Your task to perform on an android device: open a new tab in the chrome app Image 0: 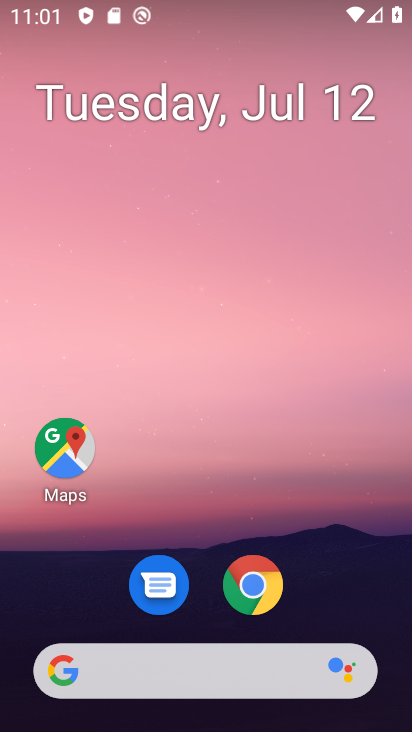
Step 0: click (260, 586)
Your task to perform on an android device: open a new tab in the chrome app Image 1: 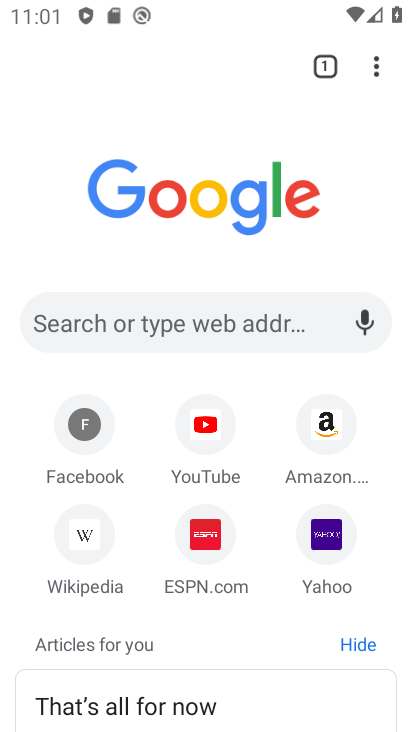
Step 1: click (374, 64)
Your task to perform on an android device: open a new tab in the chrome app Image 2: 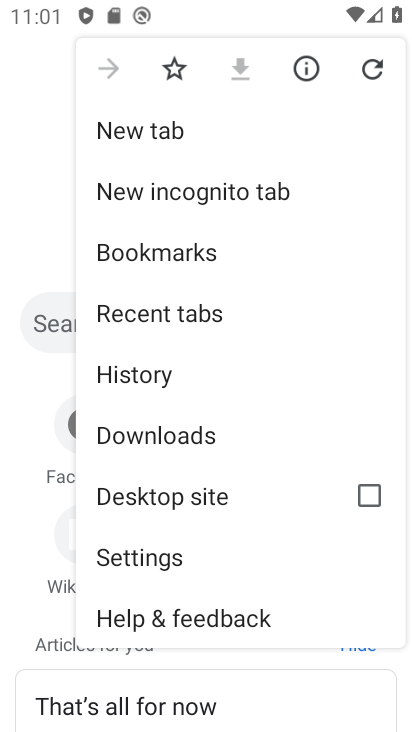
Step 2: click (283, 131)
Your task to perform on an android device: open a new tab in the chrome app Image 3: 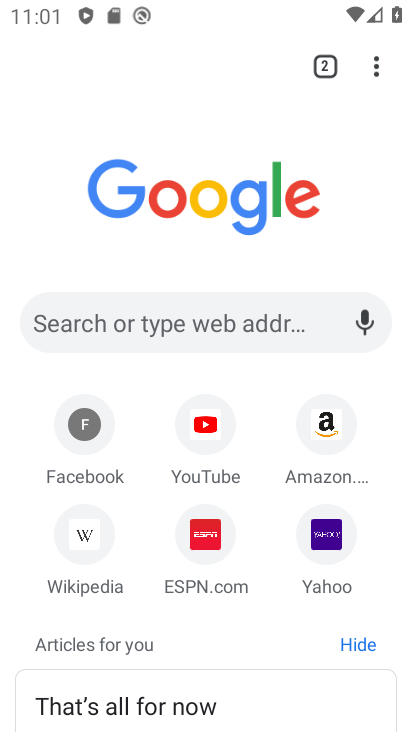
Step 3: task complete